Your task to perform on an android device: turn off wifi Image 0: 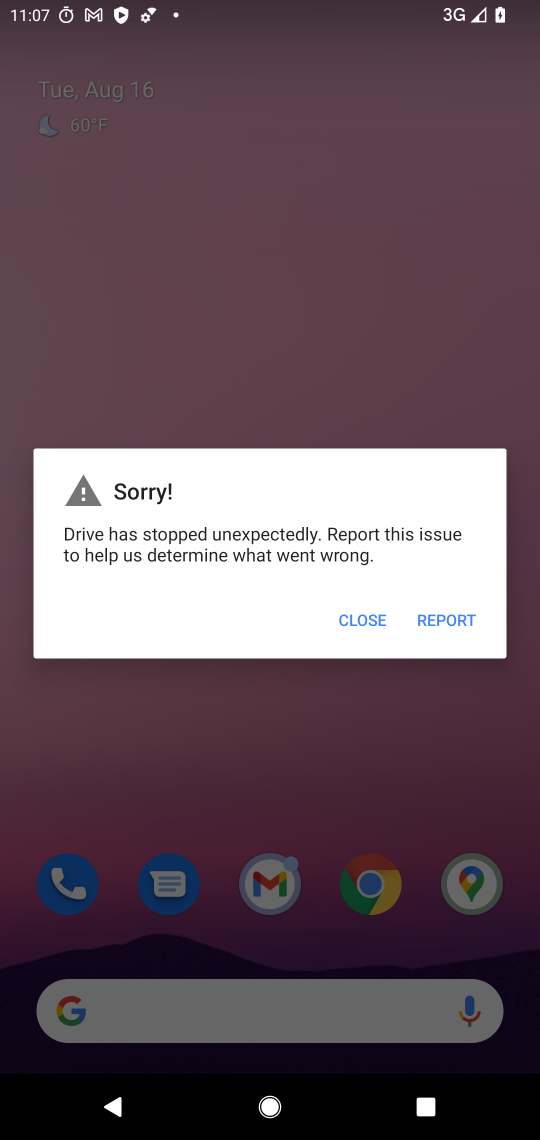
Step 0: click (360, 617)
Your task to perform on an android device: turn off wifi Image 1: 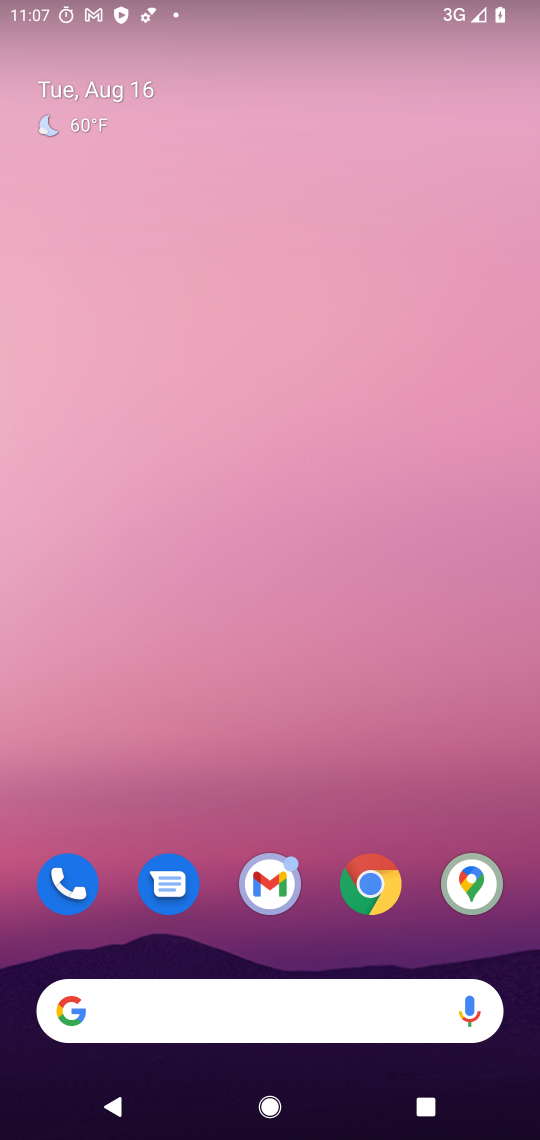
Step 1: drag from (202, 672) to (186, 61)
Your task to perform on an android device: turn off wifi Image 2: 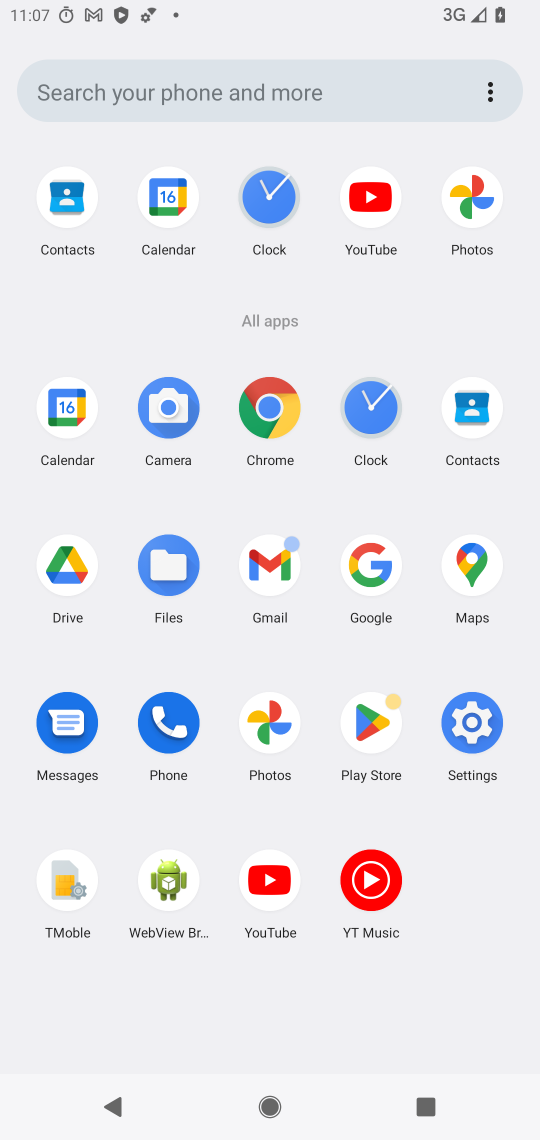
Step 2: click (472, 713)
Your task to perform on an android device: turn off wifi Image 3: 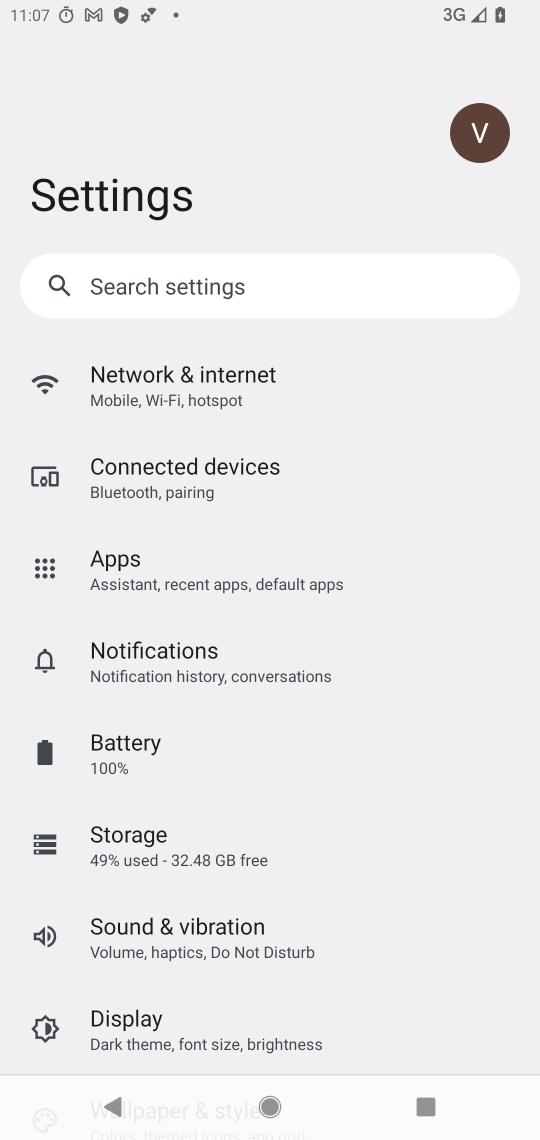
Step 3: click (227, 390)
Your task to perform on an android device: turn off wifi Image 4: 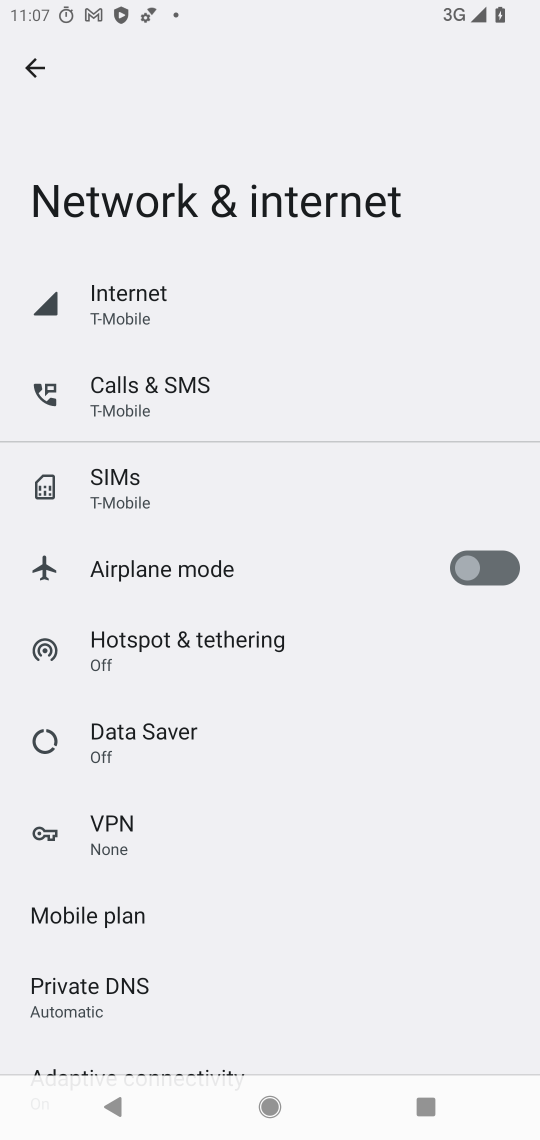
Step 4: click (135, 308)
Your task to perform on an android device: turn off wifi Image 5: 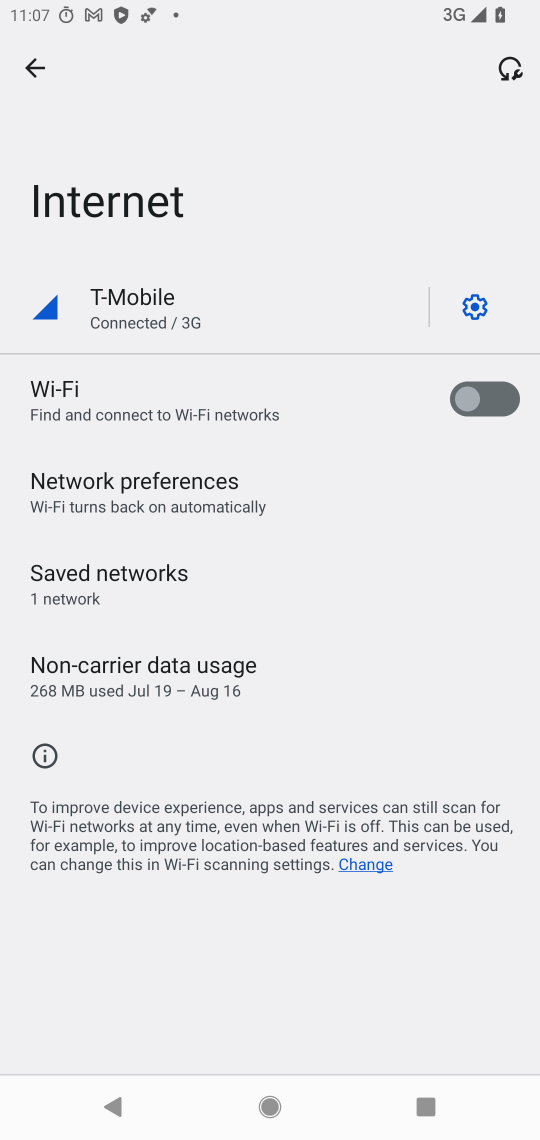
Step 5: task complete